Your task to perform on an android device: see tabs open on other devices in the chrome app Image 0: 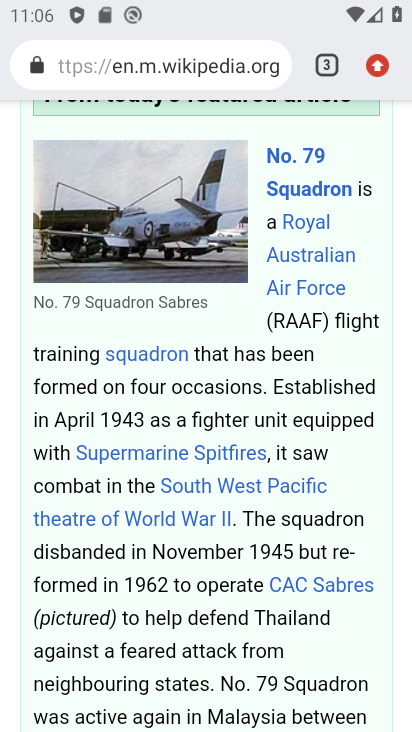
Step 0: drag from (368, 68) to (190, 398)
Your task to perform on an android device: see tabs open on other devices in the chrome app Image 1: 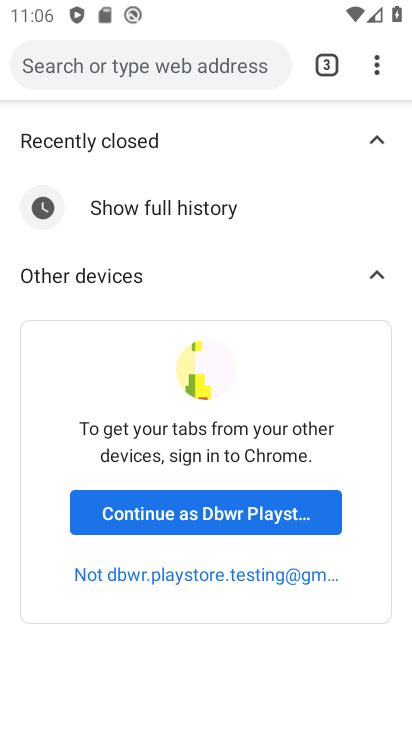
Step 1: click (186, 526)
Your task to perform on an android device: see tabs open on other devices in the chrome app Image 2: 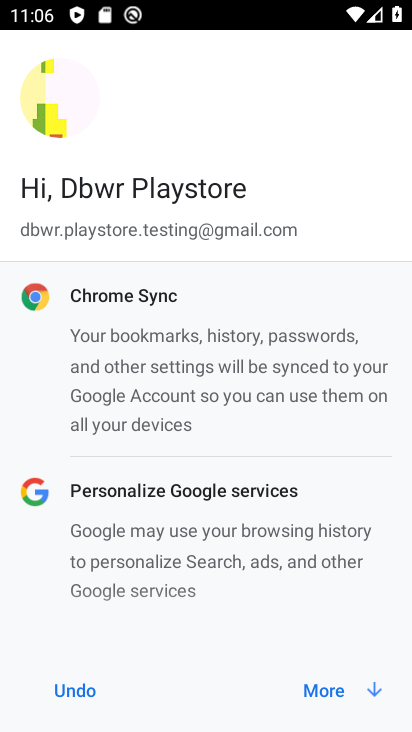
Step 2: click (325, 692)
Your task to perform on an android device: see tabs open on other devices in the chrome app Image 3: 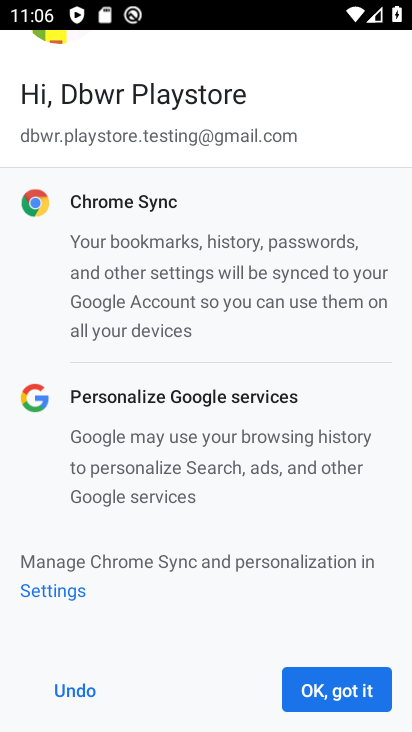
Step 3: click (326, 690)
Your task to perform on an android device: see tabs open on other devices in the chrome app Image 4: 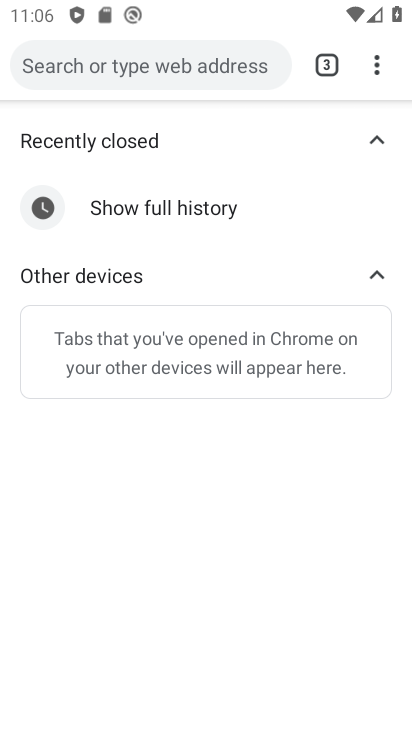
Step 4: task complete